Your task to perform on an android device: Add "asus zenbook" to the cart on costco Image 0: 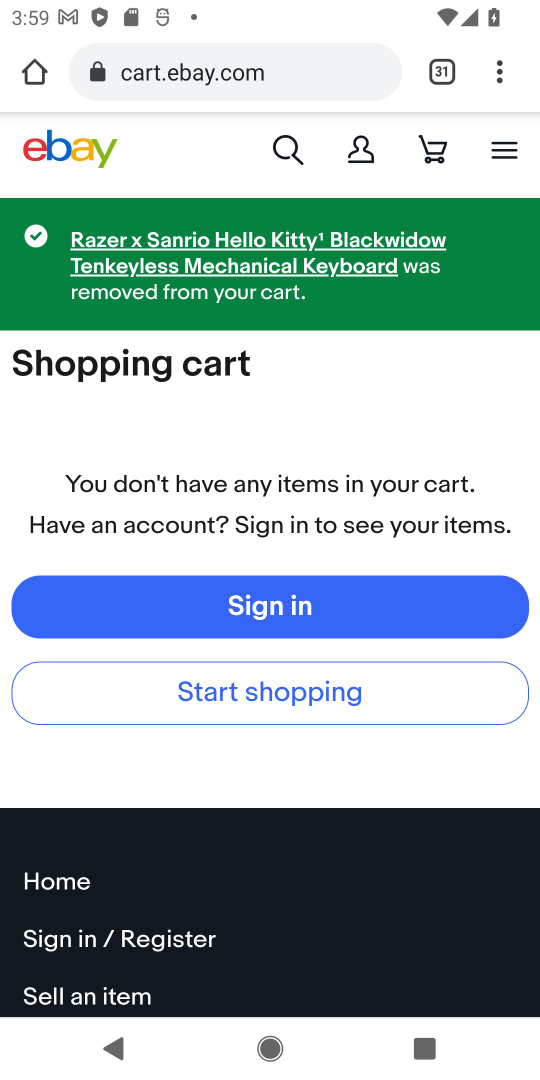
Step 0: press home button
Your task to perform on an android device: Add "asus zenbook" to the cart on costco Image 1: 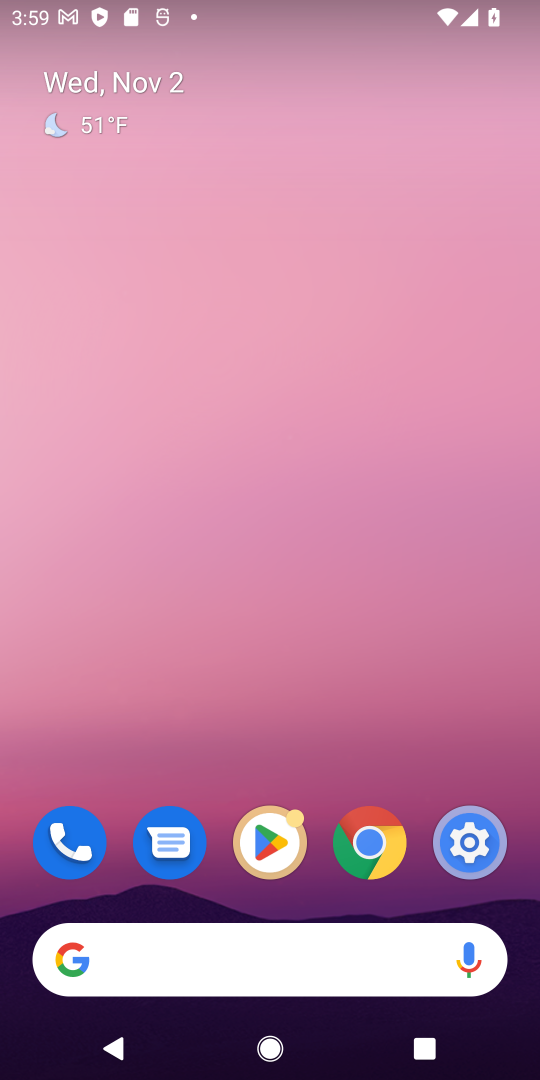
Step 1: click (282, 938)
Your task to perform on an android device: Add "asus zenbook" to the cart on costco Image 2: 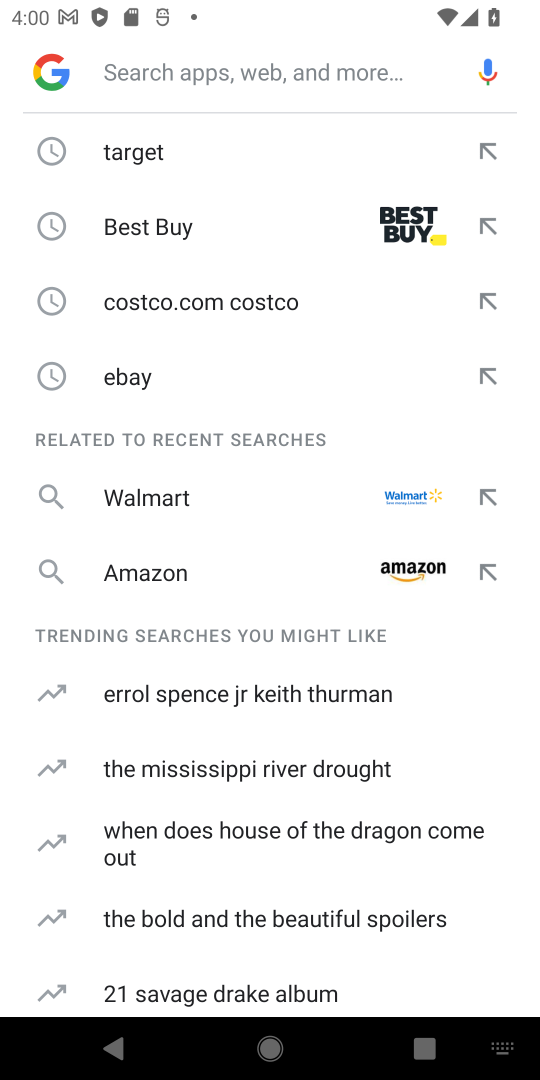
Step 2: type "costco"
Your task to perform on an android device: Add "asus zenbook" to the cart on costco Image 3: 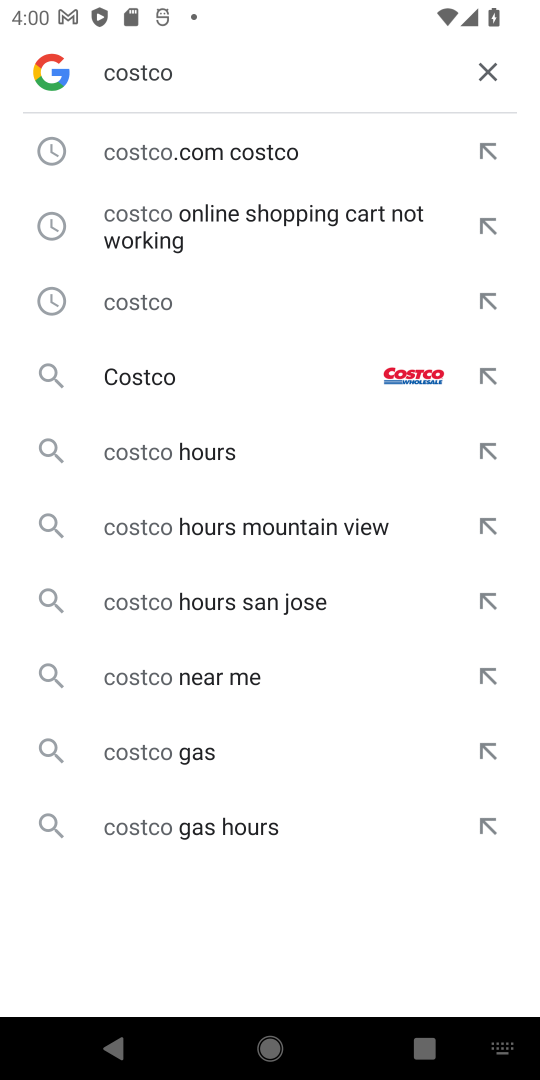
Step 3: click (150, 392)
Your task to perform on an android device: Add "asus zenbook" to the cart on costco Image 4: 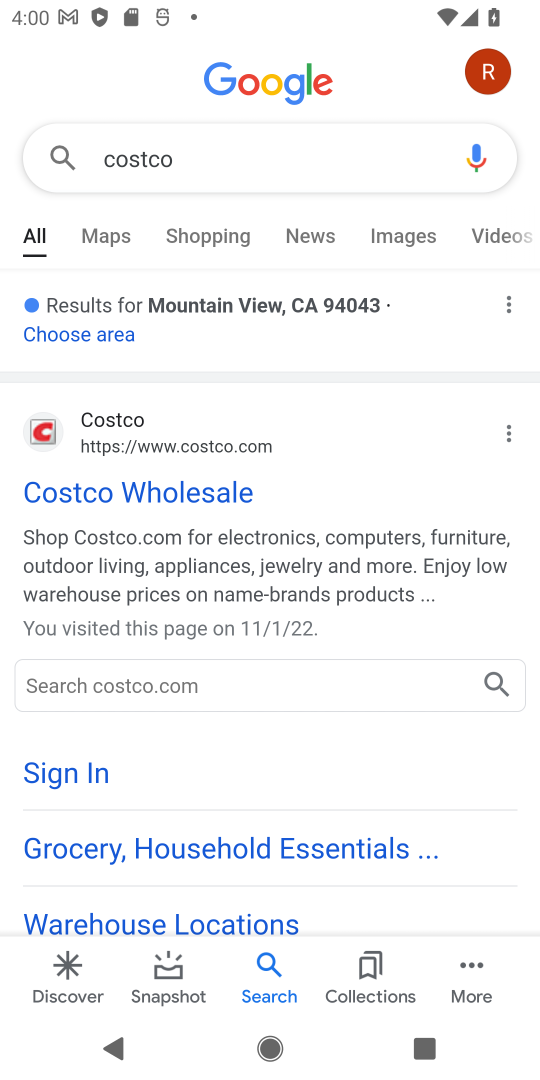
Step 4: click (161, 504)
Your task to perform on an android device: Add "asus zenbook" to the cart on costco Image 5: 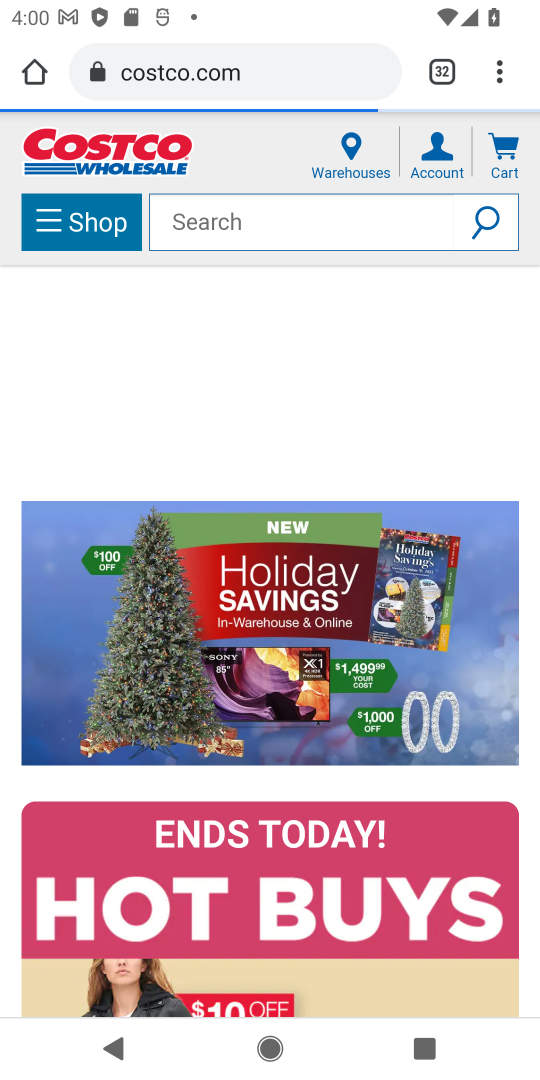
Step 5: click (293, 220)
Your task to perform on an android device: Add "asus zenbook" to the cart on costco Image 6: 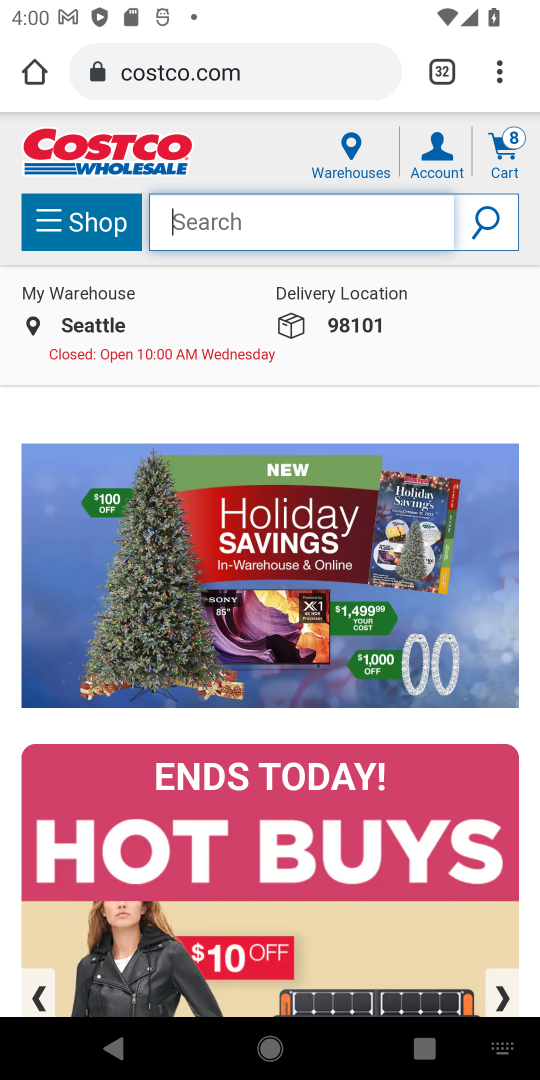
Step 6: type "asus zenbook"
Your task to perform on an android device: Add "asus zenbook" to the cart on costco Image 7: 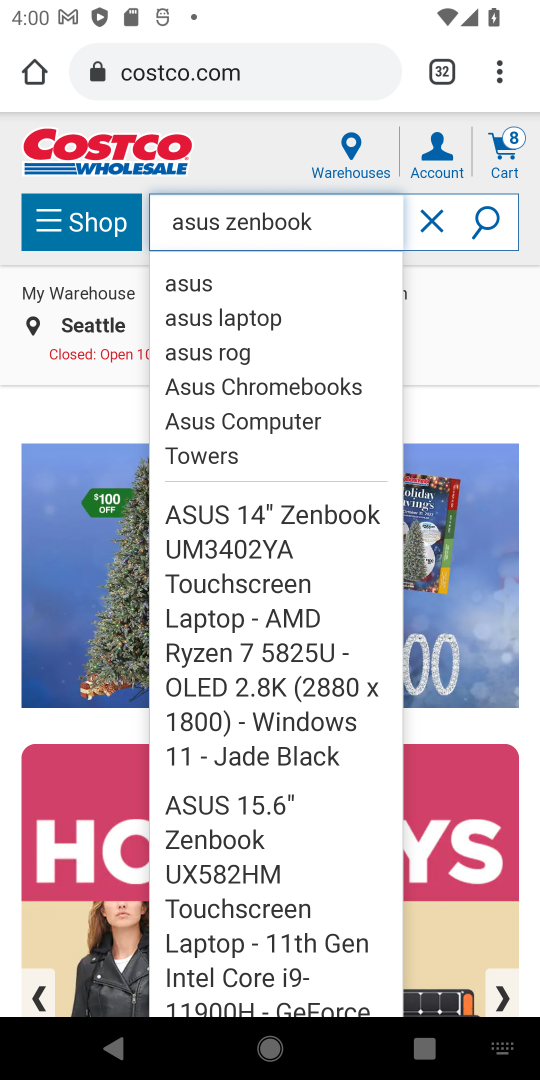
Step 7: click (483, 224)
Your task to perform on an android device: Add "asus zenbook" to the cart on costco Image 8: 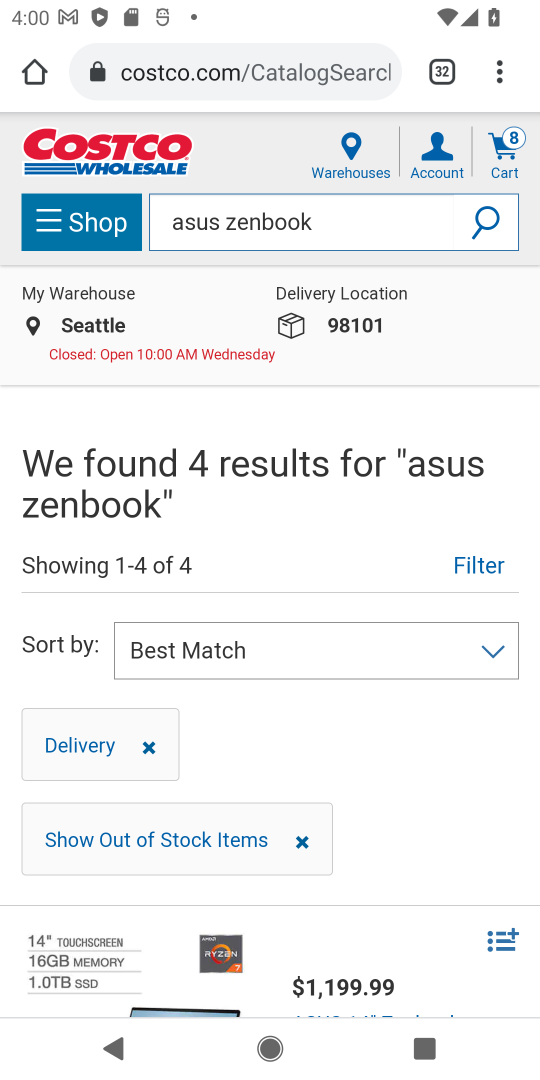
Step 8: drag from (406, 775) to (330, 383)
Your task to perform on an android device: Add "asus zenbook" to the cart on costco Image 9: 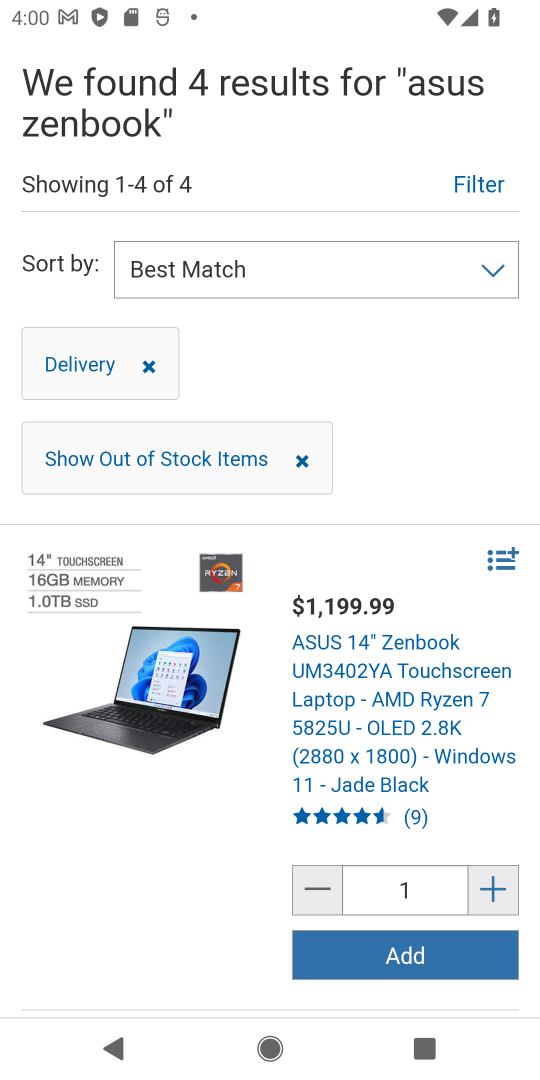
Step 9: click (406, 952)
Your task to perform on an android device: Add "asus zenbook" to the cart on costco Image 10: 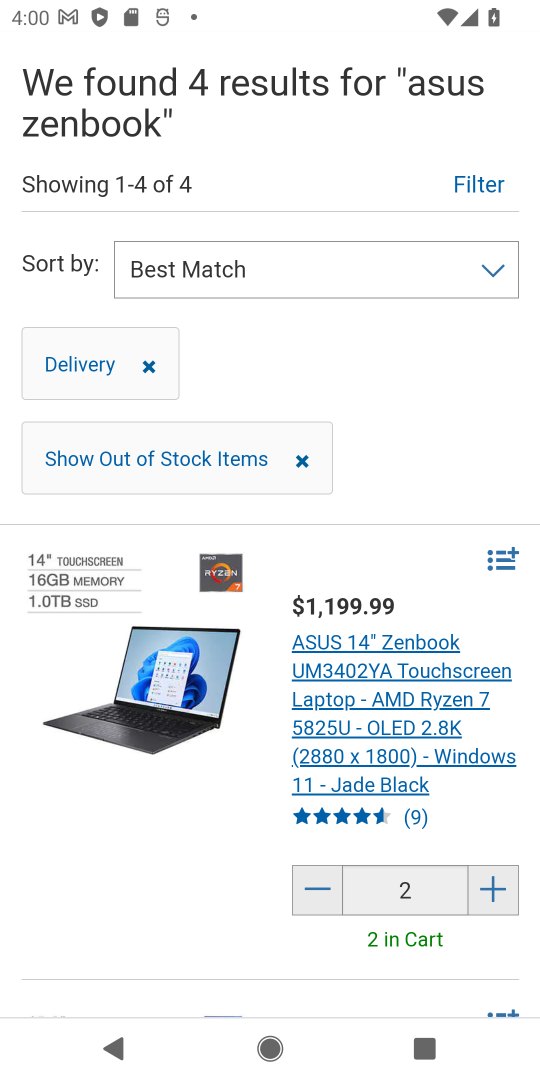
Step 10: task complete